Your task to perform on an android device: Open display settings Image 0: 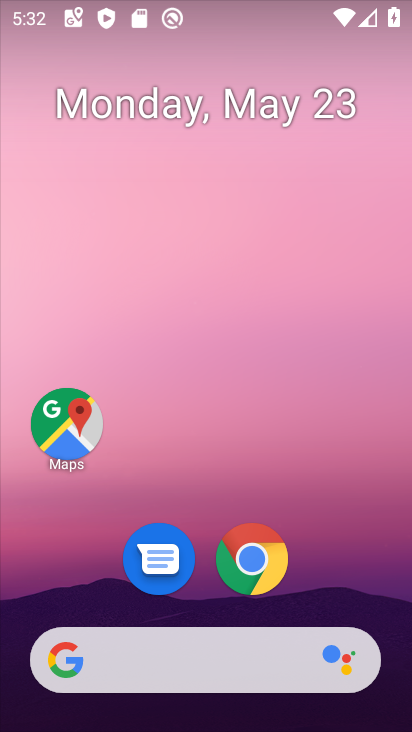
Step 0: drag from (261, 592) to (343, 7)
Your task to perform on an android device: Open display settings Image 1: 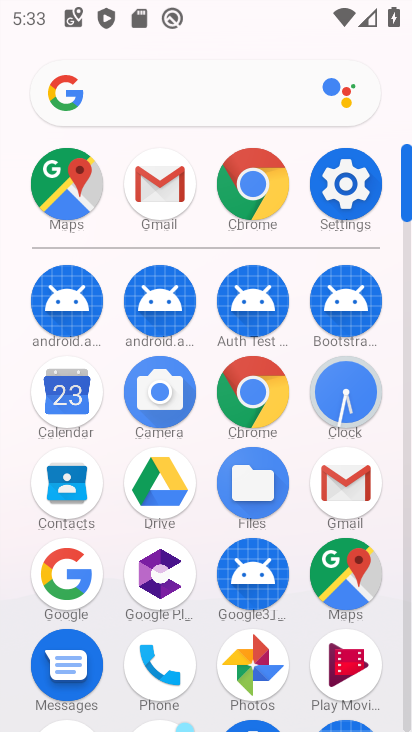
Step 1: click (335, 161)
Your task to perform on an android device: Open display settings Image 2: 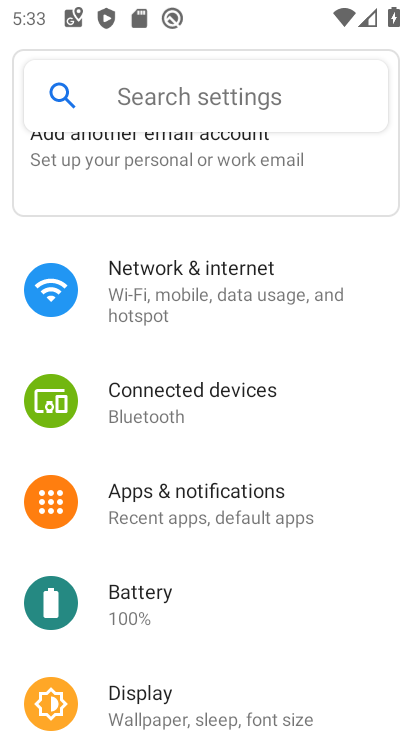
Step 2: click (234, 702)
Your task to perform on an android device: Open display settings Image 3: 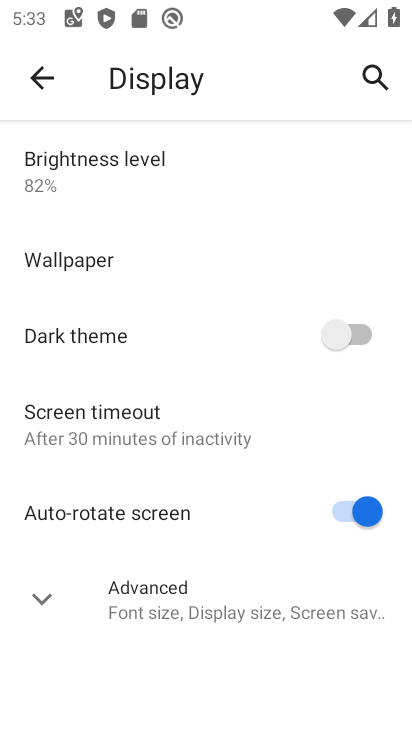
Step 3: task complete